Your task to perform on an android device: What is the recent news? Image 0: 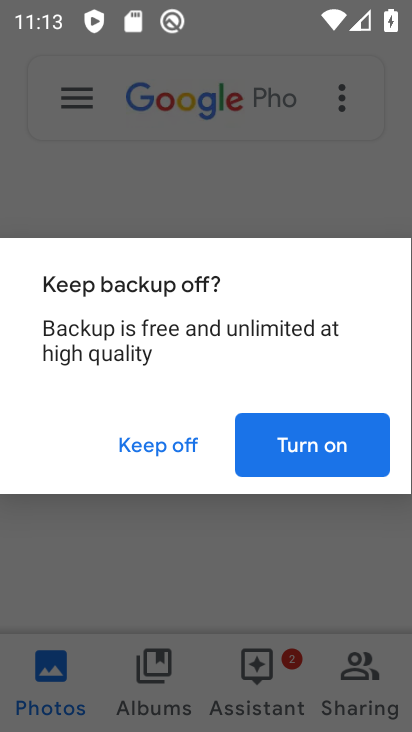
Step 0: click (159, 448)
Your task to perform on an android device: What is the recent news? Image 1: 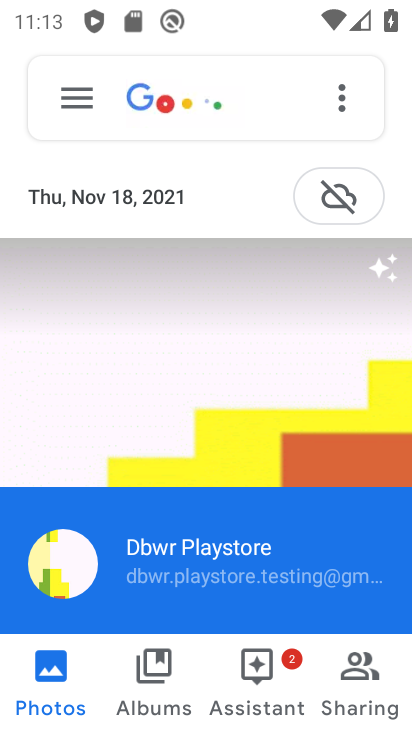
Step 1: press back button
Your task to perform on an android device: What is the recent news? Image 2: 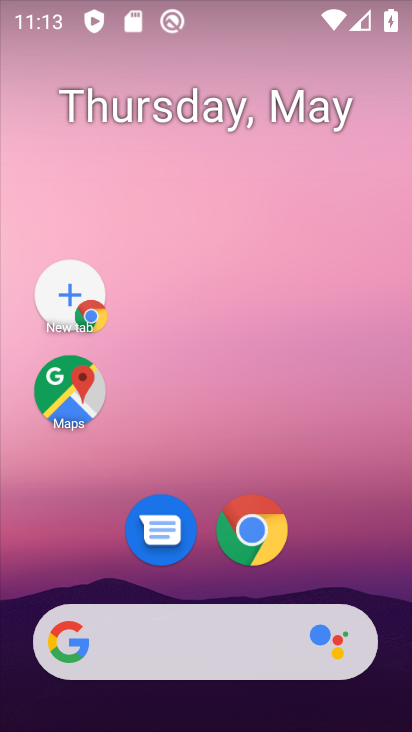
Step 2: drag from (0, 250) to (385, 544)
Your task to perform on an android device: What is the recent news? Image 3: 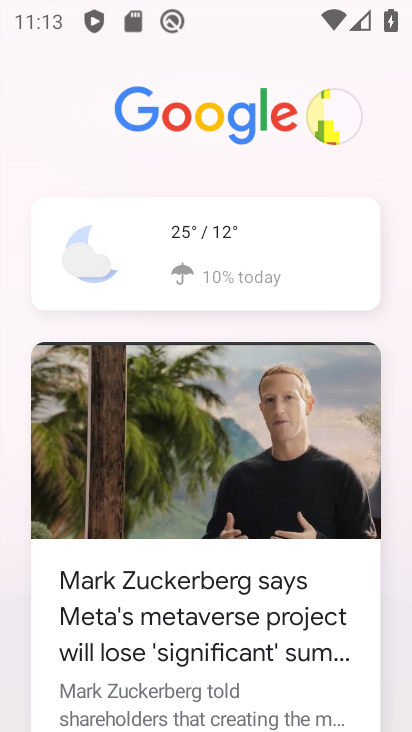
Step 3: drag from (167, 493) to (86, 221)
Your task to perform on an android device: What is the recent news? Image 4: 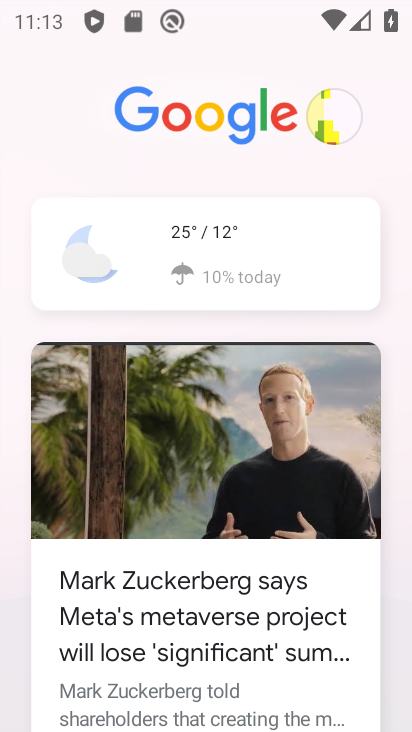
Step 4: drag from (272, 586) to (245, 233)
Your task to perform on an android device: What is the recent news? Image 5: 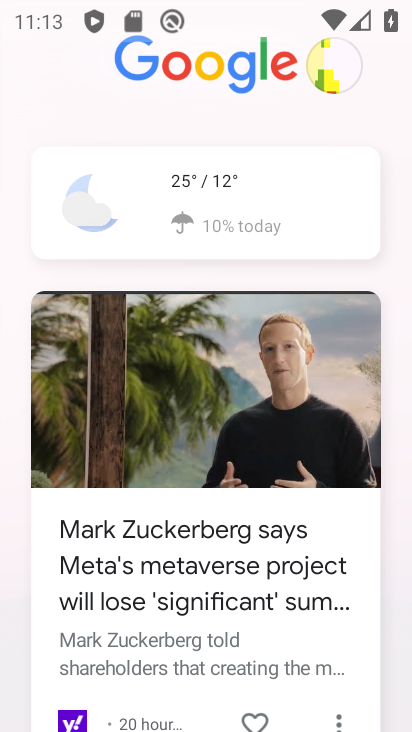
Step 5: drag from (252, 560) to (252, 318)
Your task to perform on an android device: What is the recent news? Image 6: 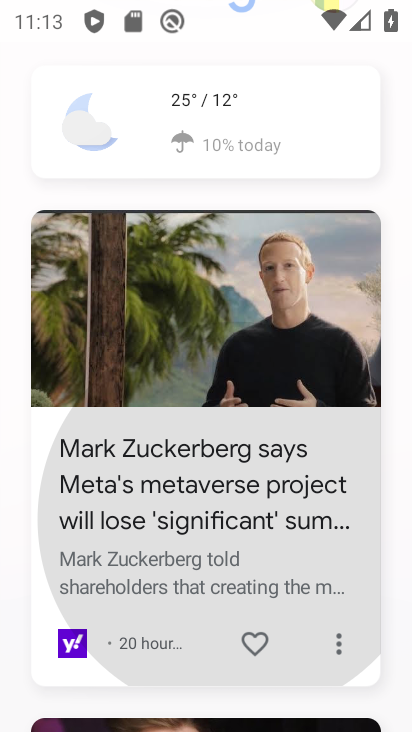
Step 6: drag from (177, 537) to (229, 221)
Your task to perform on an android device: What is the recent news? Image 7: 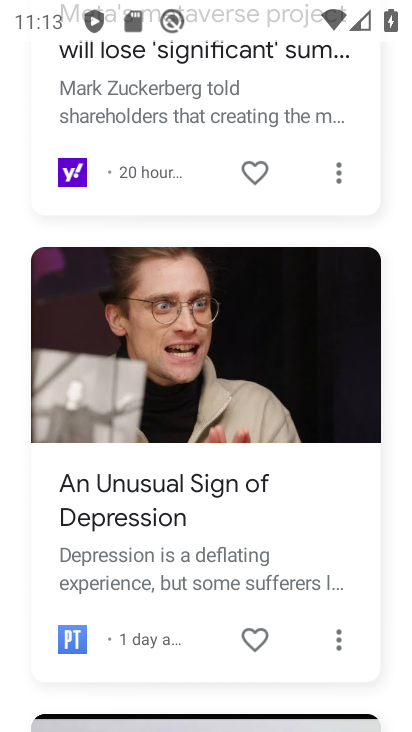
Step 7: drag from (184, 442) to (184, 171)
Your task to perform on an android device: What is the recent news? Image 8: 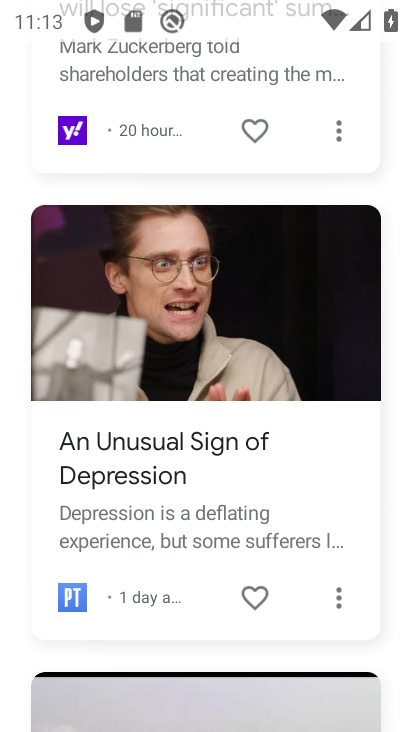
Step 8: drag from (234, 314) to (234, 165)
Your task to perform on an android device: What is the recent news? Image 9: 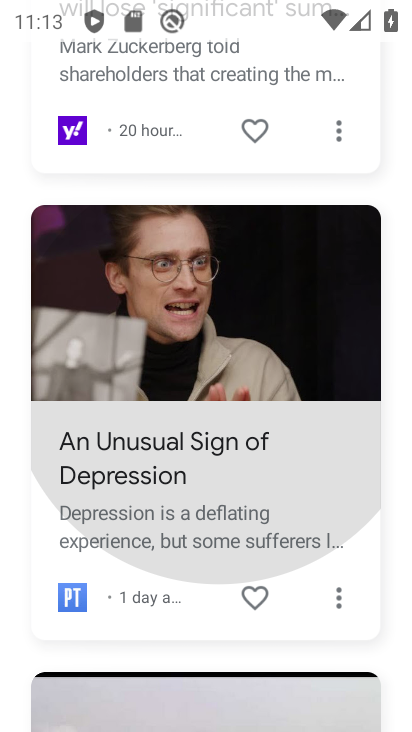
Step 9: drag from (203, 463) to (203, 186)
Your task to perform on an android device: What is the recent news? Image 10: 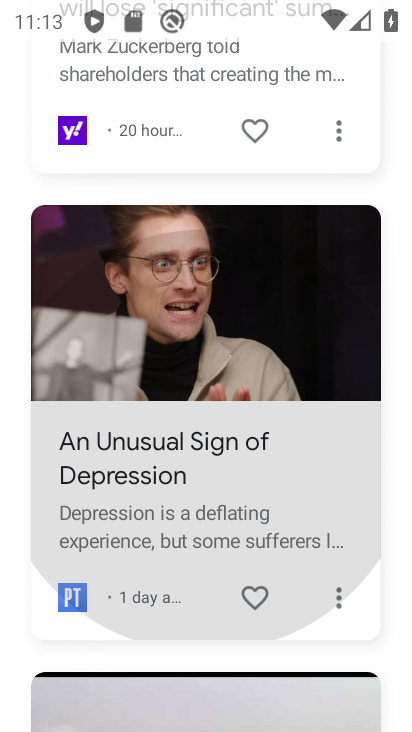
Step 10: drag from (209, 303) to (209, 165)
Your task to perform on an android device: What is the recent news? Image 11: 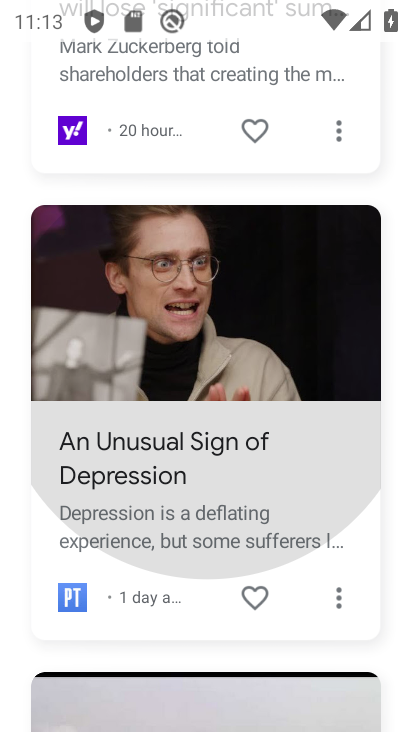
Step 11: drag from (270, 475) to (266, 211)
Your task to perform on an android device: What is the recent news? Image 12: 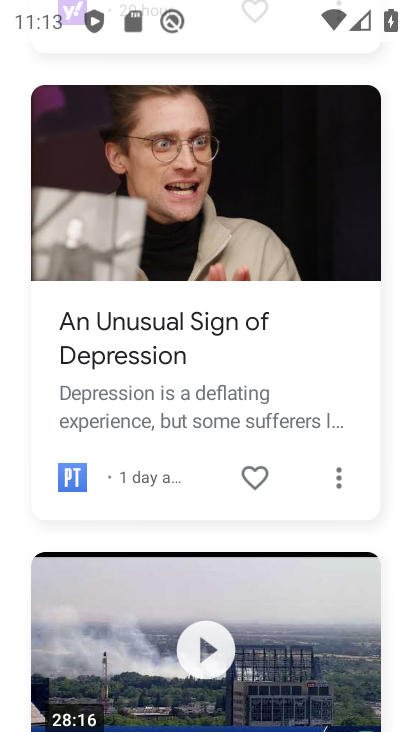
Step 12: click (232, 156)
Your task to perform on an android device: What is the recent news? Image 13: 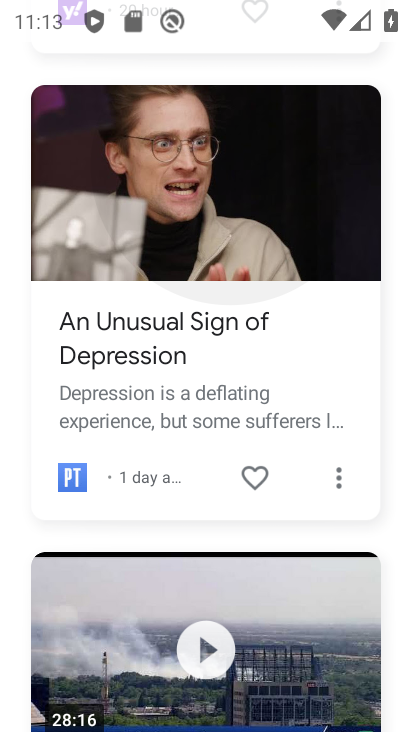
Step 13: drag from (222, 421) to (211, 227)
Your task to perform on an android device: What is the recent news? Image 14: 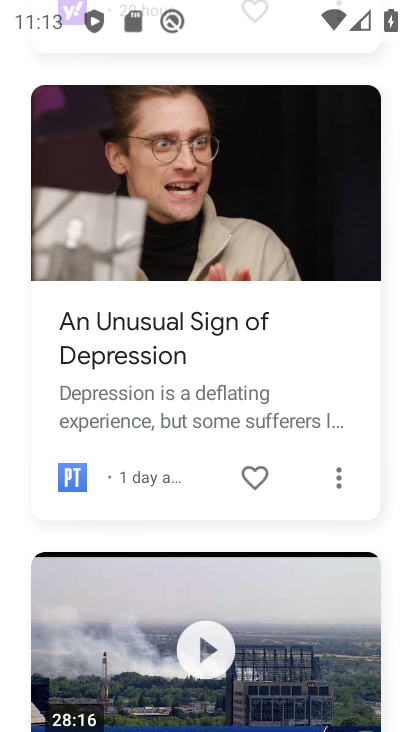
Step 14: drag from (238, 254) to (244, 209)
Your task to perform on an android device: What is the recent news? Image 15: 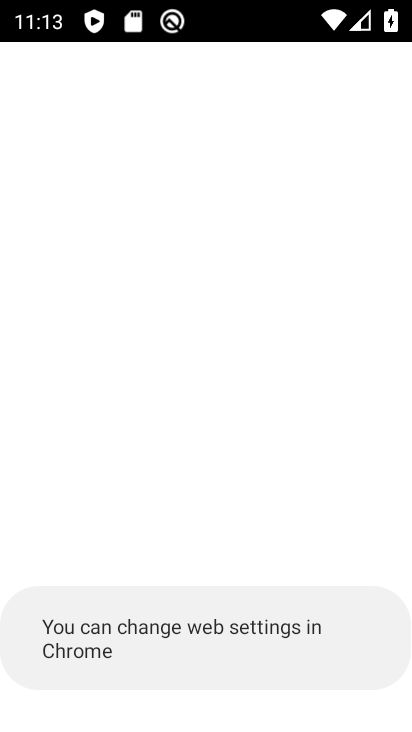
Step 15: drag from (267, 370) to (267, 231)
Your task to perform on an android device: What is the recent news? Image 16: 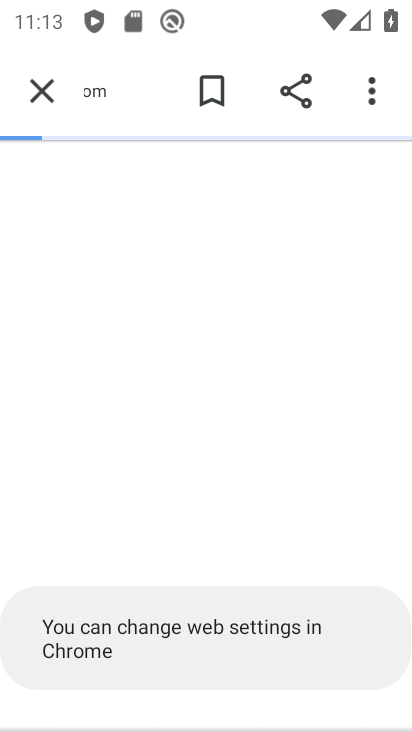
Step 16: click (252, 257)
Your task to perform on an android device: What is the recent news? Image 17: 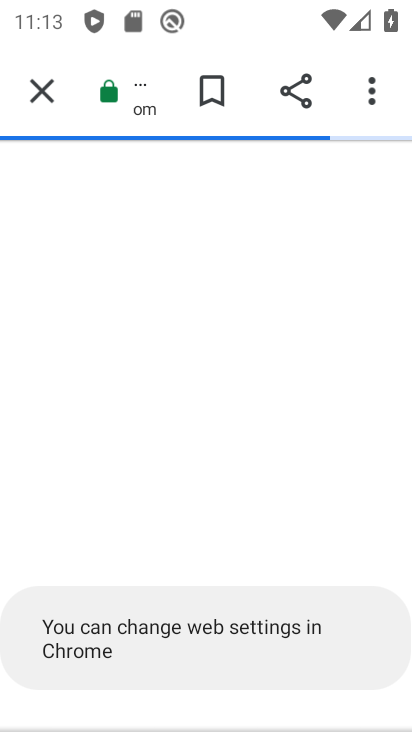
Step 17: task complete